Your task to perform on an android device: clear all cookies in the chrome app Image 0: 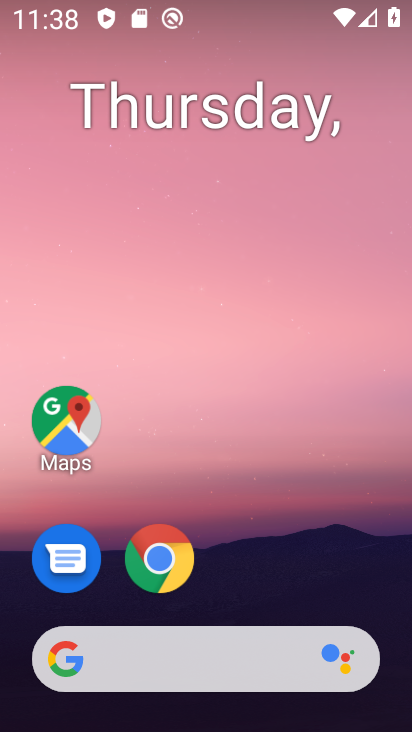
Step 0: press home button
Your task to perform on an android device: clear all cookies in the chrome app Image 1: 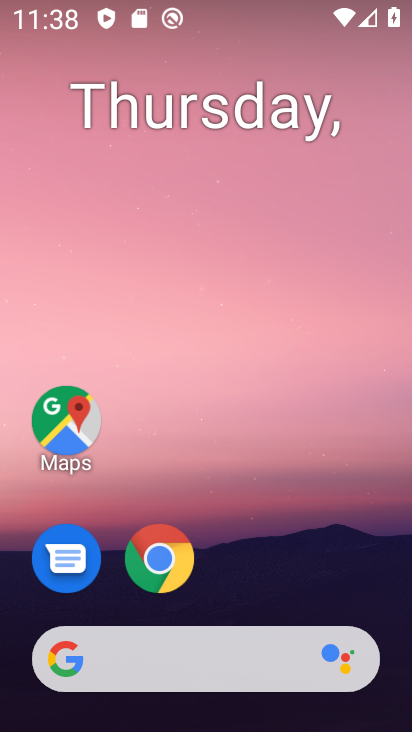
Step 1: drag from (366, 550) to (380, 92)
Your task to perform on an android device: clear all cookies in the chrome app Image 2: 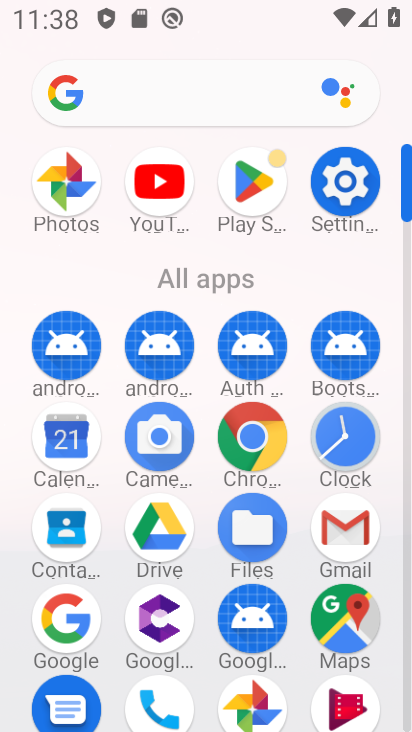
Step 2: click (257, 428)
Your task to perform on an android device: clear all cookies in the chrome app Image 3: 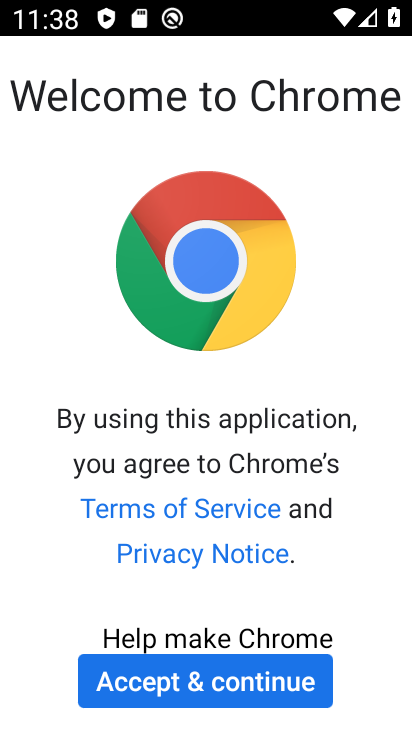
Step 3: click (201, 680)
Your task to perform on an android device: clear all cookies in the chrome app Image 4: 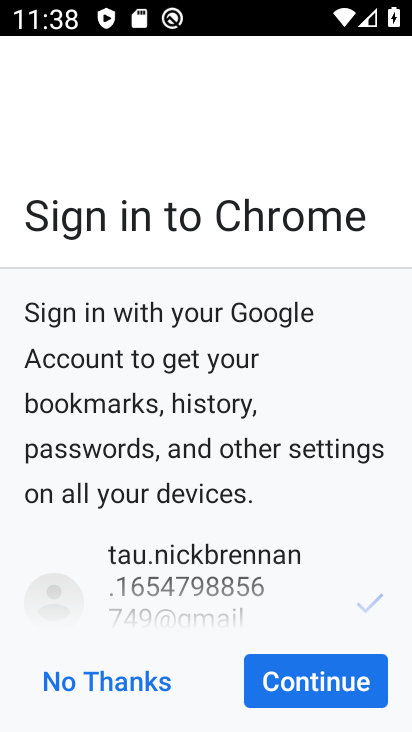
Step 4: click (268, 686)
Your task to perform on an android device: clear all cookies in the chrome app Image 5: 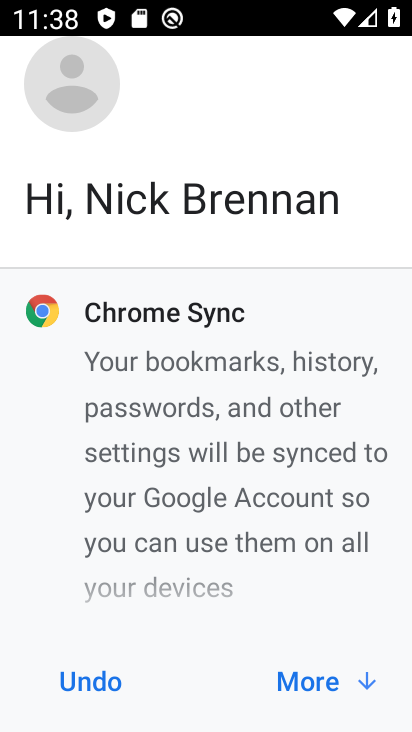
Step 5: click (301, 684)
Your task to perform on an android device: clear all cookies in the chrome app Image 6: 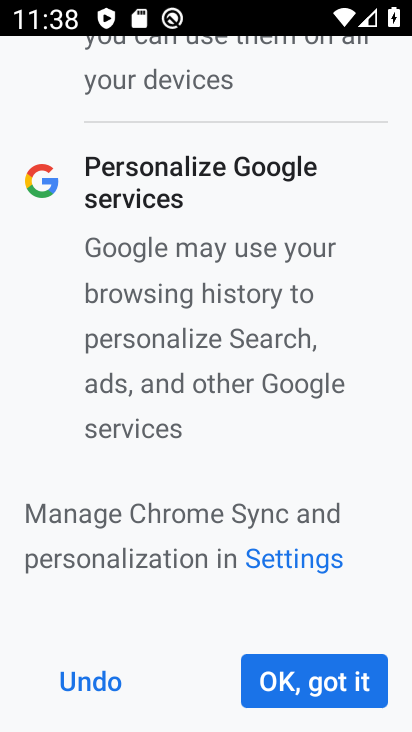
Step 6: click (301, 684)
Your task to perform on an android device: clear all cookies in the chrome app Image 7: 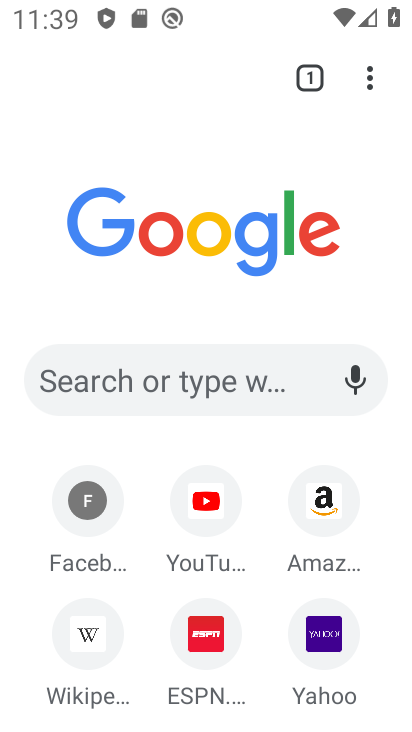
Step 7: click (369, 84)
Your task to perform on an android device: clear all cookies in the chrome app Image 8: 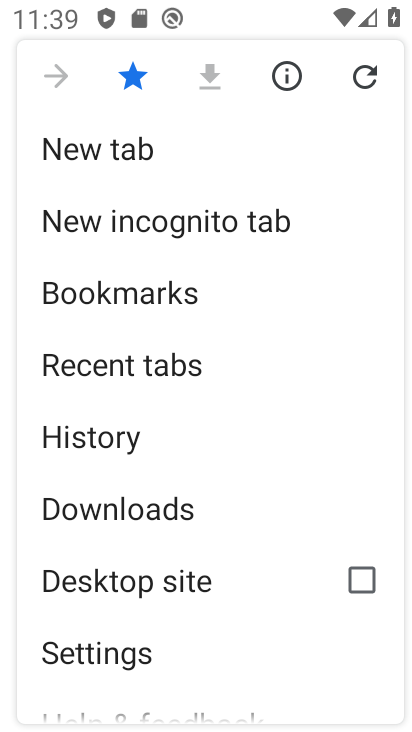
Step 8: click (135, 651)
Your task to perform on an android device: clear all cookies in the chrome app Image 9: 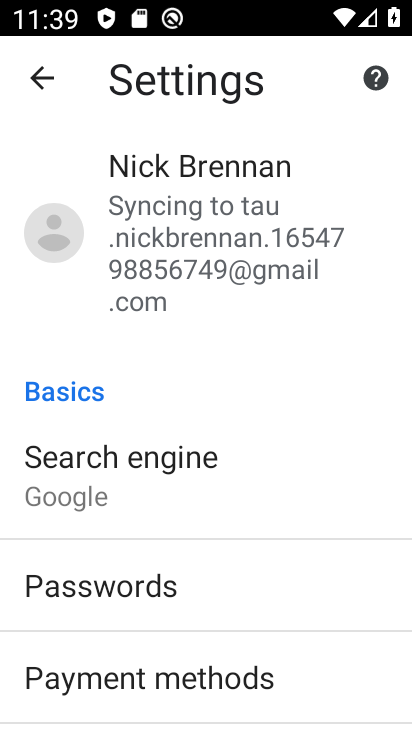
Step 9: drag from (345, 561) to (344, 472)
Your task to perform on an android device: clear all cookies in the chrome app Image 10: 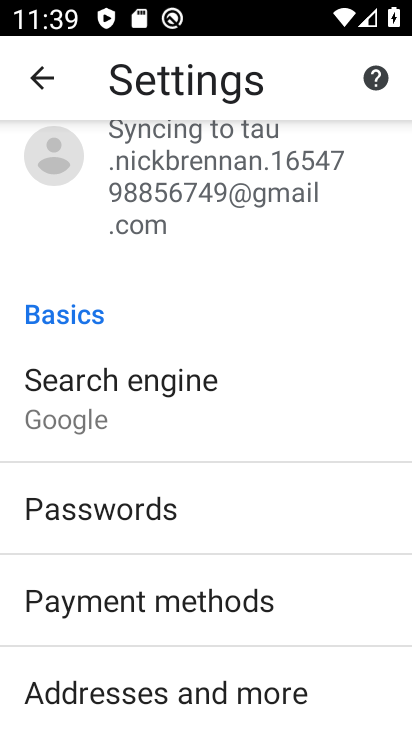
Step 10: drag from (333, 616) to (340, 522)
Your task to perform on an android device: clear all cookies in the chrome app Image 11: 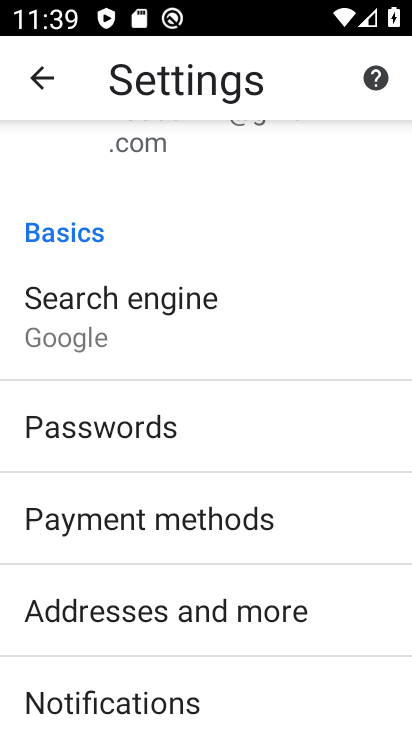
Step 11: drag from (336, 657) to (338, 487)
Your task to perform on an android device: clear all cookies in the chrome app Image 12: 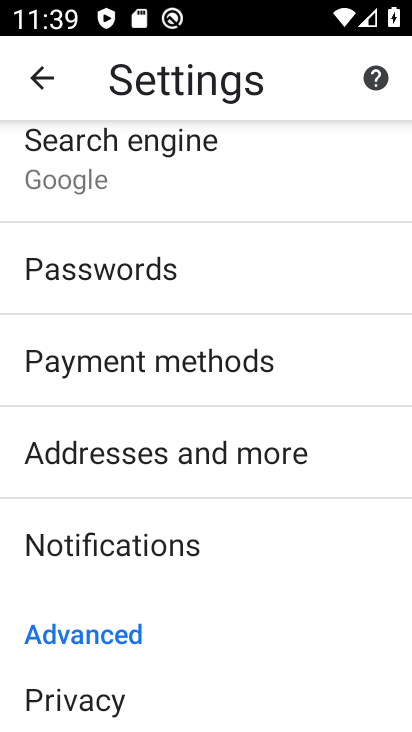
Step 12: drag from (329, 609) to (321, 490)
Your task to perform on an android device: clear all cookies in the chrome app Image 13: 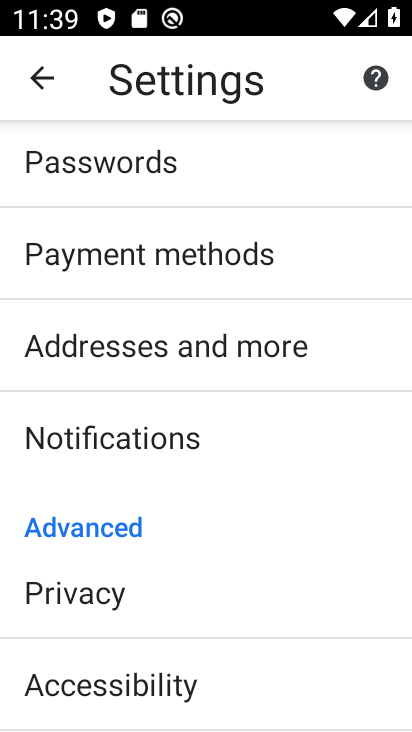
Step 13: click (318, 620)
Your task to perform on an android device: clear all cookies in the chrome app Image 14: 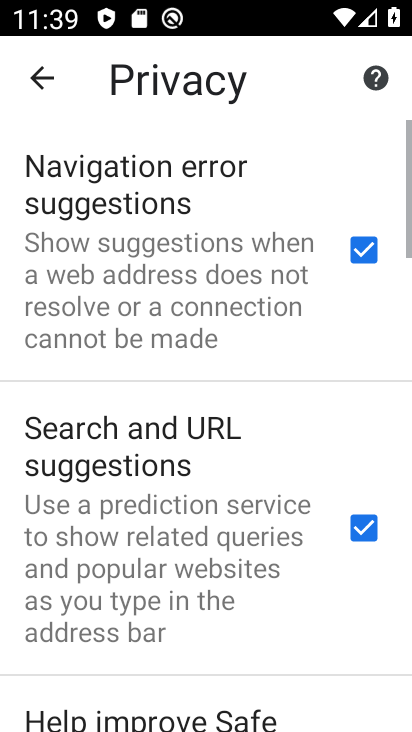
Step 14: drag from (318, 620) to (332, 545)
Your task to perform on an android device: clear all cookies in the chrome app Image 15: 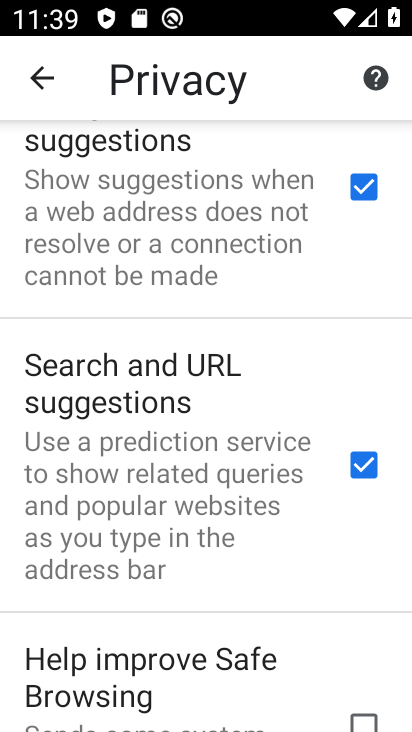
Step 15: drag from (337, 648) to (340, 574)
Your task to perform on an android device: clear all cookies in the chrome app Image 16: 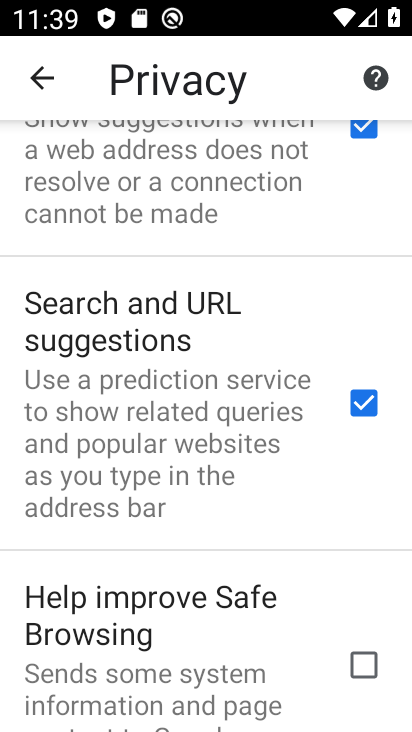
Step 16: drag from (309, 669) to (309, 575)
Your task to perform on an android device: clear all cookies in the chrome app Image 17: 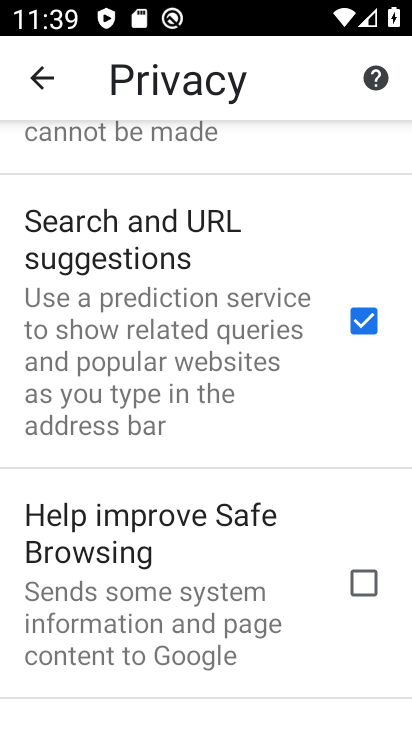
Step 17: drag from (305, 666) to (304, 576)
Your task to perform on an android device: clear all cookies in the chrome app Image 18: 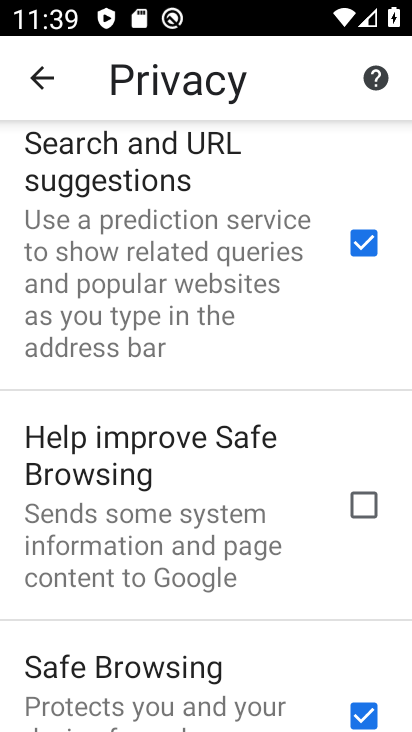
Step 18: drag from (303, 673) to (303, 569)
Your task to perform on an android device: clear all cookies in the chrome app Image 19: 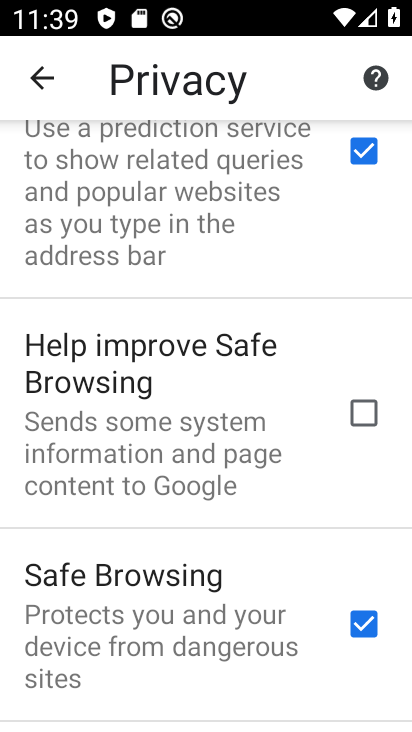
Step 19: drag from (303, 664) to (301, 552)
Your task to perform on an android device: clear all cookies in the chrome app Image 20: 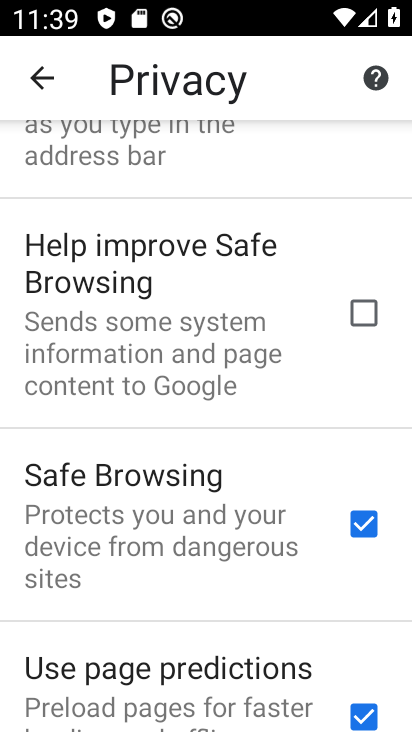
Step 20: drag from (309, 694) to (317, 585)
Your task to perform on an android device: clear all cookies in the chrome app Image 21: 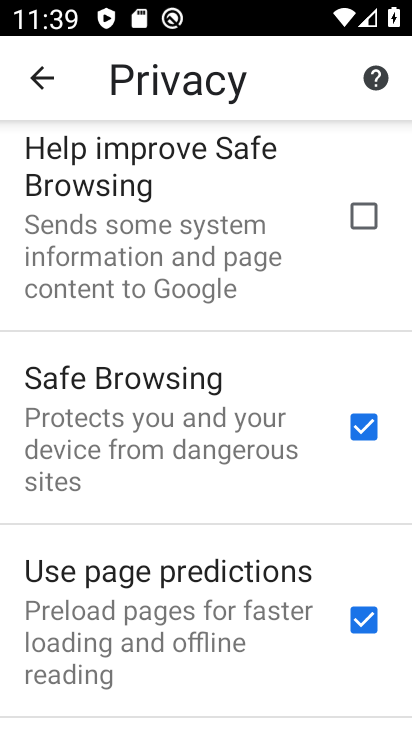
Step 21: drag from (289, 678) to (287, 574)
Your task to perform on an android device: clear all cookies in the chrome app Image 22: 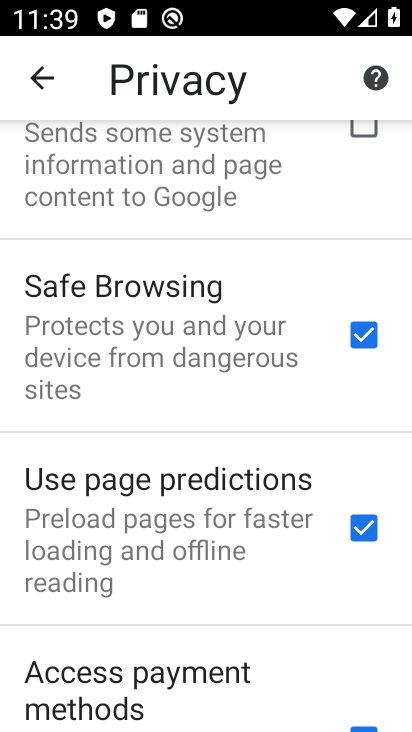
Step 22: drag from (306, 686) to (311, 553)
Your task to perform on an android device: clear all cookies in the chrome app Image 23: 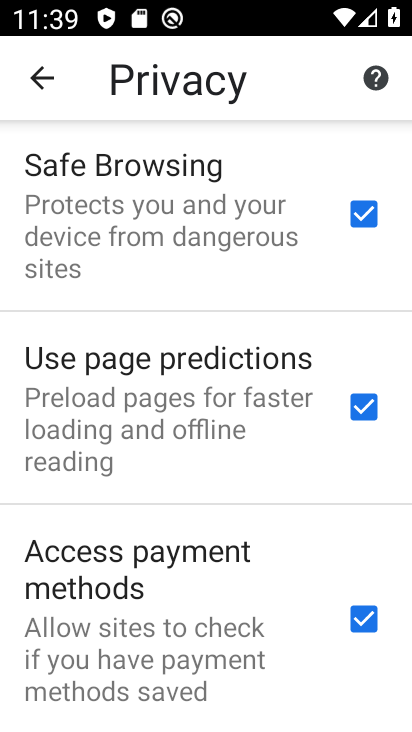
Step 23: drag from (305, 692) to (300, 547)
Your task to perform on an android device: clear all cookies in the chrome app Image 24: 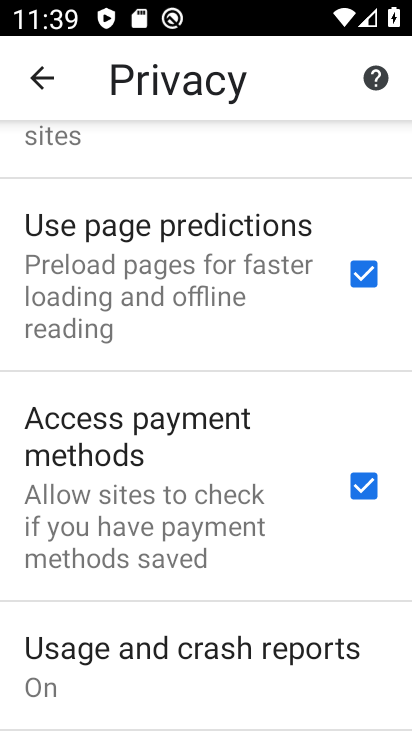
Step 24: drag from (288, 697) to (293, 559)
Your task to perform on an android device: clear all cookies in the chrome app Image 25: 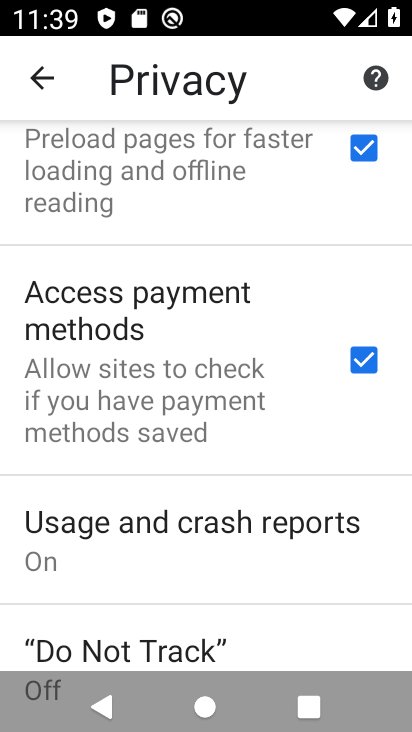
Step 25: drag from (276, 645) to (274, 509)
Your task to perform on an android device: clear all cookies in the chrome app Image 26: 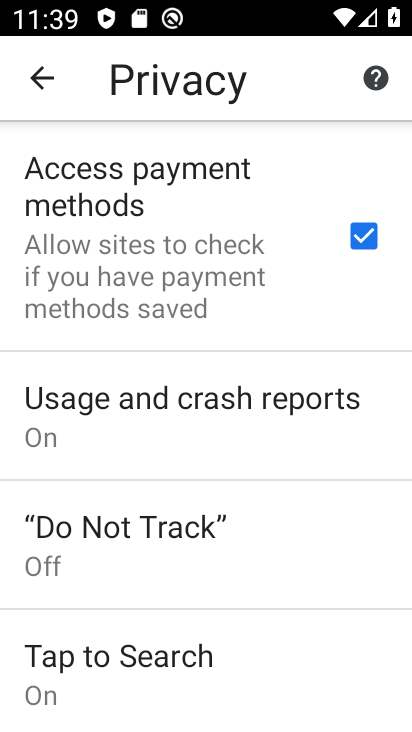
Step 26: drag from (276, 679) to (274, 535)
Your task to perform on an android device: clear all cookies in the chrome app Image 27: 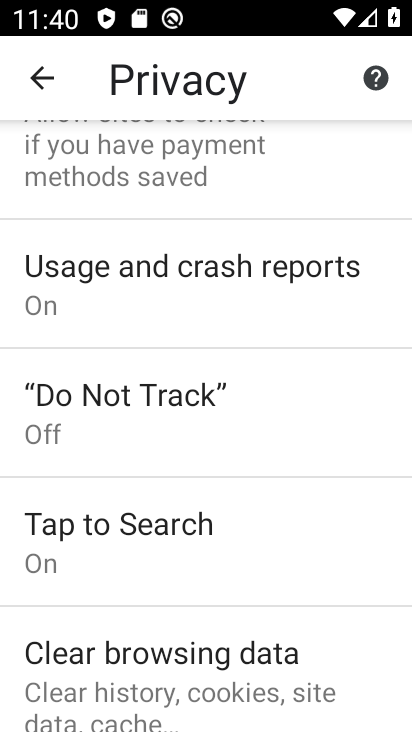
Step 27: click (270, 663)
Your task to perform on an android device: clear all cookies in the chrome app Image 28: 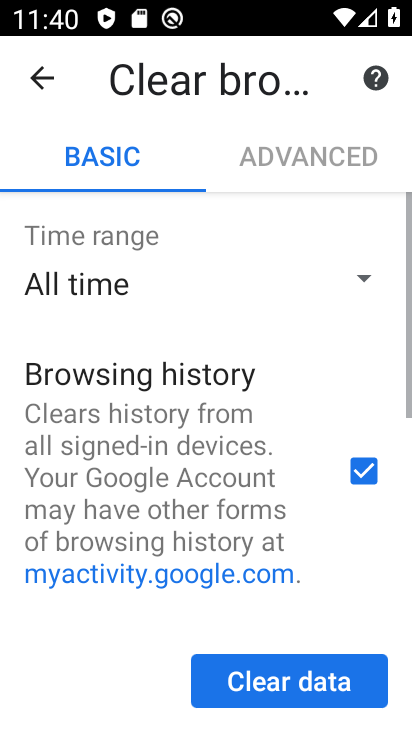
Step 28: click (288, 678)
Your task to perform on an android device: clear all cookies in the chrome app Image 29: 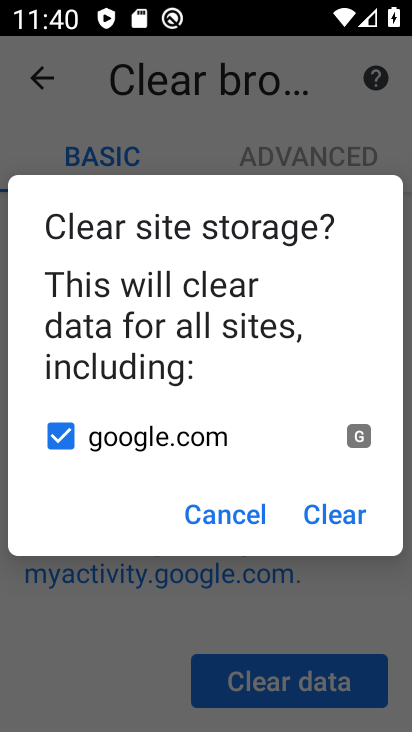
Step 29: click (342, 510)
Your task to perform on an android device: clear all cookies in the chrome app Image 30: 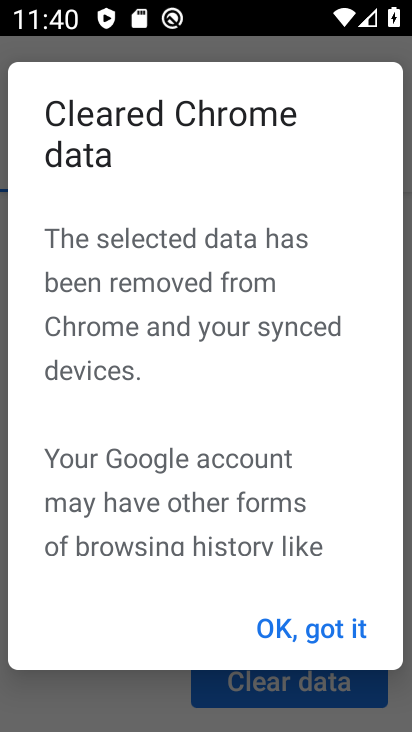
Step 30: click (353, 631)
Your task to perform on an android device: clear all cookies in the chrome app Image 31: 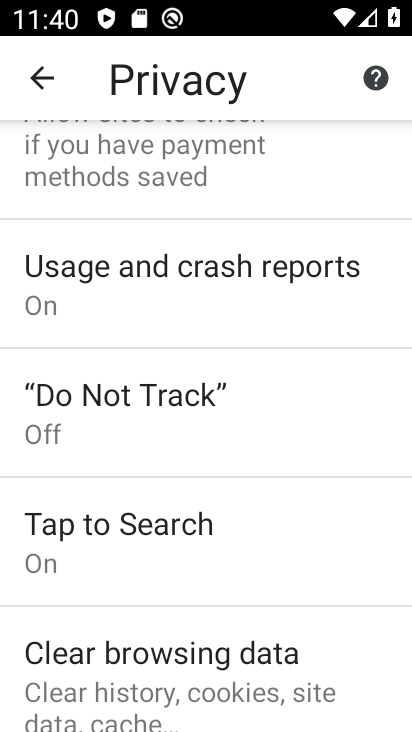
Step 31: task complete